Your task to perform on an android device: create a new album in the google photos Image 0: 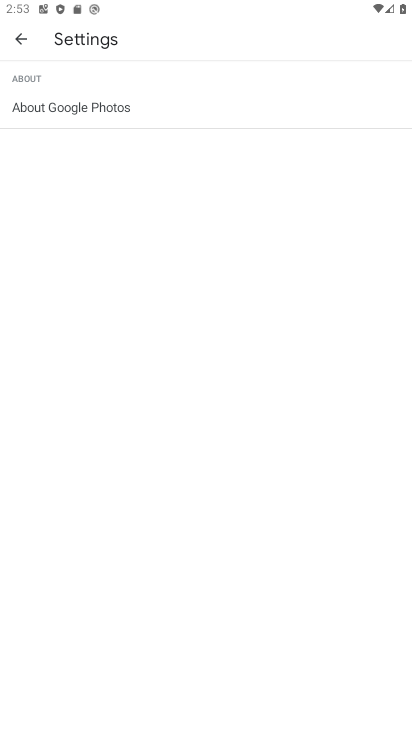
Step 0: press home button
Your task to perform on an android device: create a new album in the google photos Image 1: 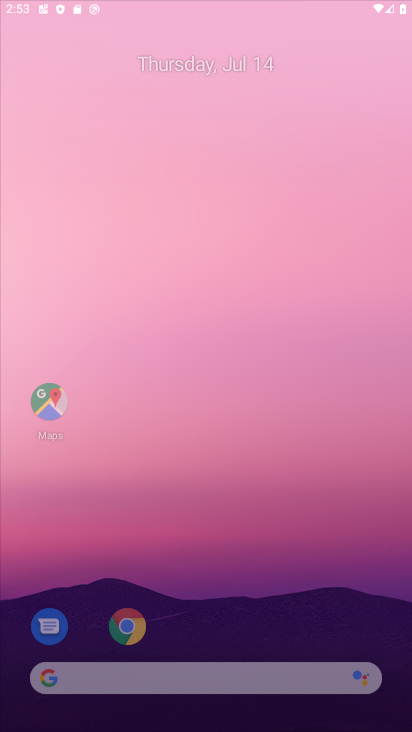
Step 1: drag from (232, 531) to (274, 170)
Your task to perform on an android device: create a new album in the google photos Image 2: 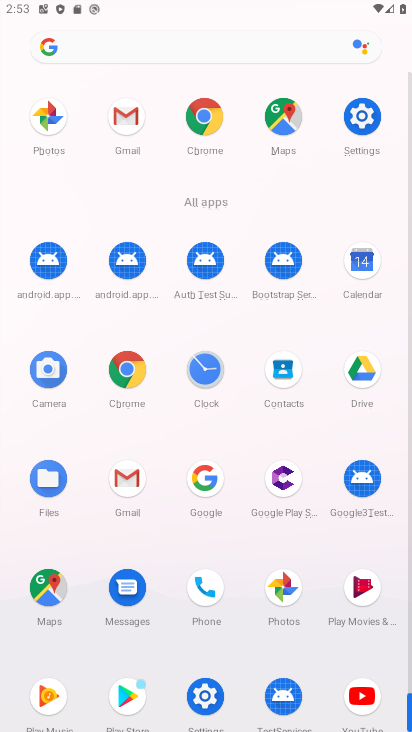
Step 2: click (278, 584)
Your task to perform on an android device: create a new album in the google photos Image 3: 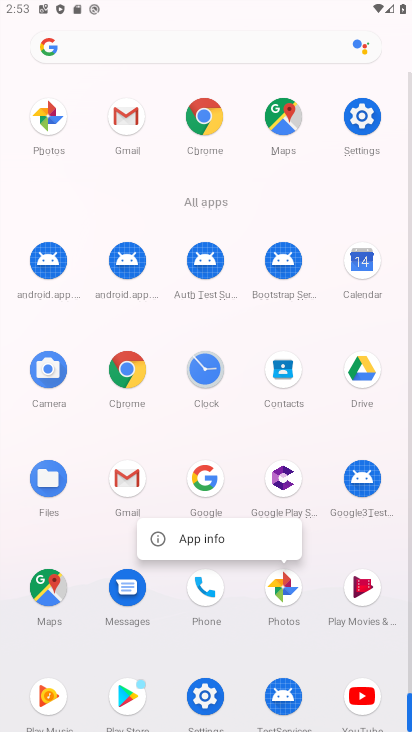
Step 3: click (216, 537)
Your task to perform on an android device: create a new album in the google photos Image 4: 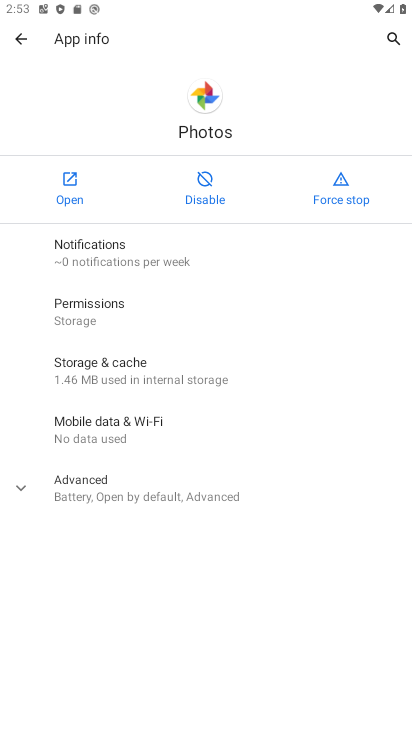
Step 4: click (69, 182)
Your task to perform on an android device: create a new album in the google photos Image 5: 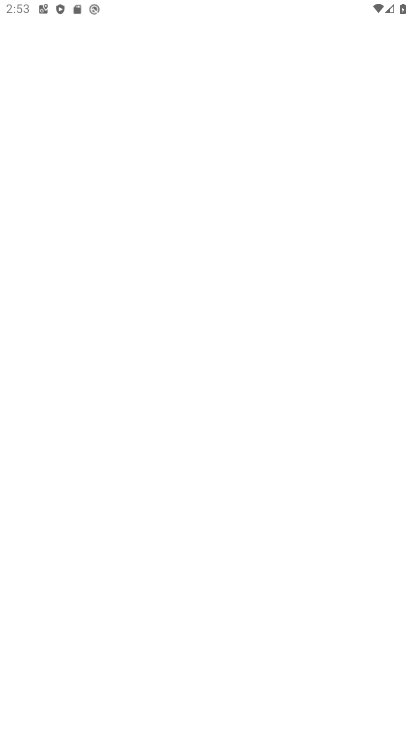
Step 5: drag from (330, 614) to (322, 366)
Your task to perform on an android device: create a new album in the google photos Image 6: 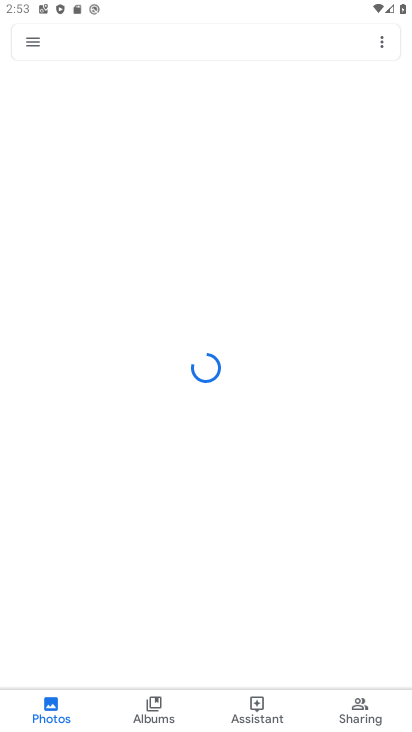
Step 6: drag from (274, 457) to (248, 305)
Your task to perform on an android device: create a new album in the google photos Image 7: 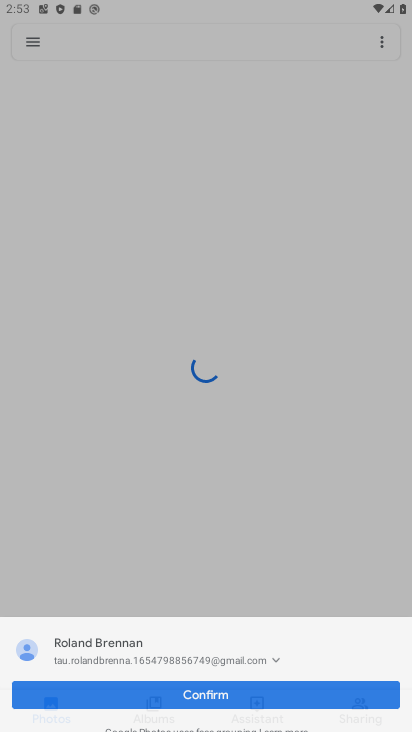
Step 7: click (217, 260)
Your task to perform on an android device: create a new album in the google photos Image 8: 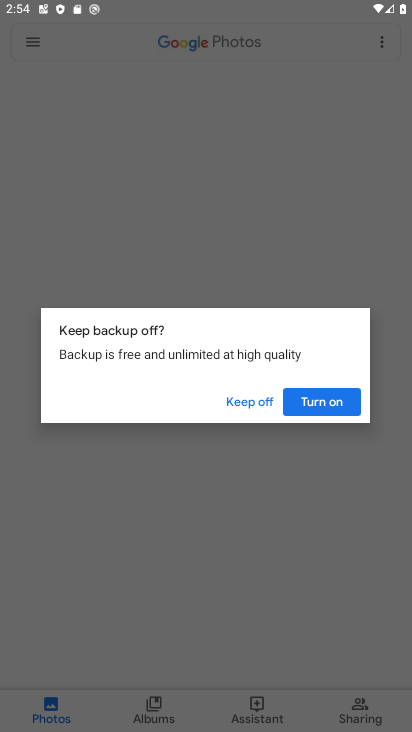
Step 8: click (255, 293)
Your task to perform on an android device: create a new album in the google photos Image 9: 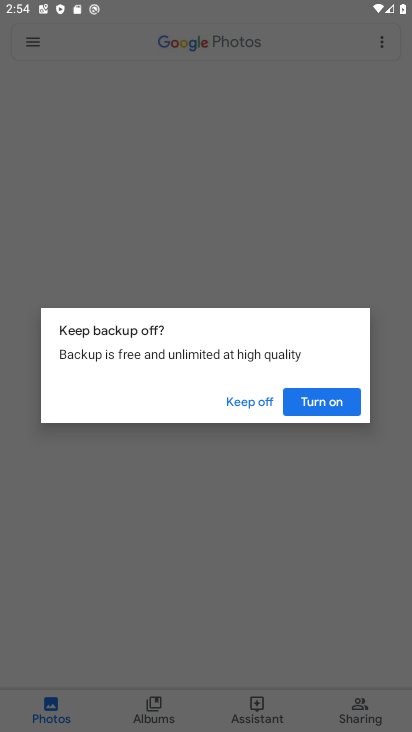
Step 9: click (303, 399)
Your task to perform on an android device: create a new album in the google photos Image 10: 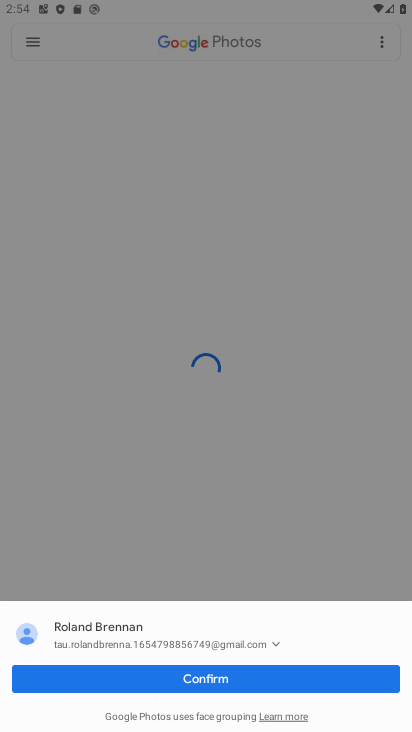
Step 10: drag from (323, 524) to (324, 307)
Your task to perform on an android device: create a new album in the google photos Image 11: 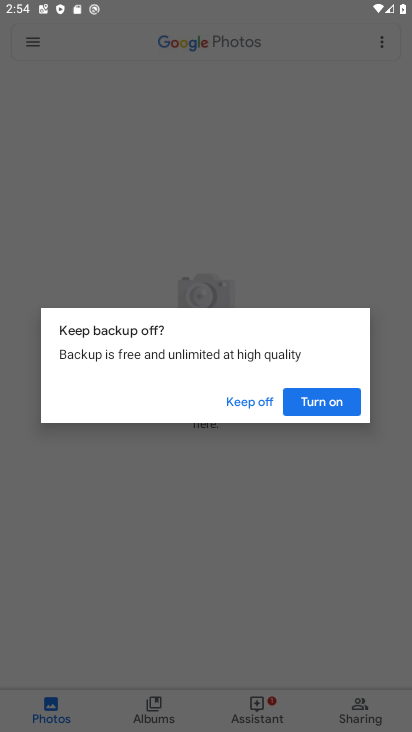
Step 11: drag from (208, 499) to (260, 315)
Your task to perform on an android device: create a new album in the google photos Image 12: 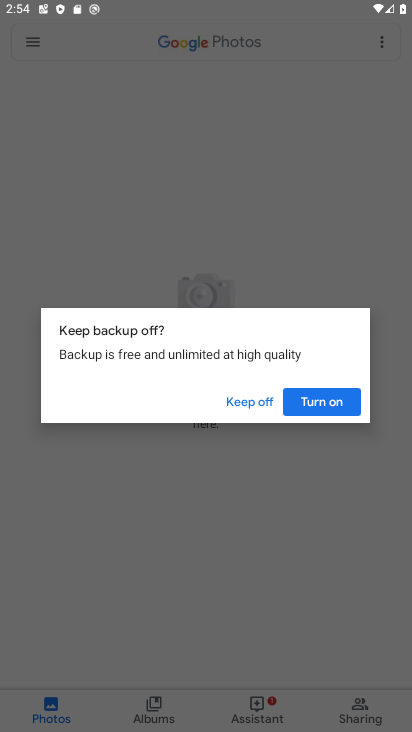
Step 12: click (306, 411)
Your task to perform on an android device: create a new album in the google photos Image 13: 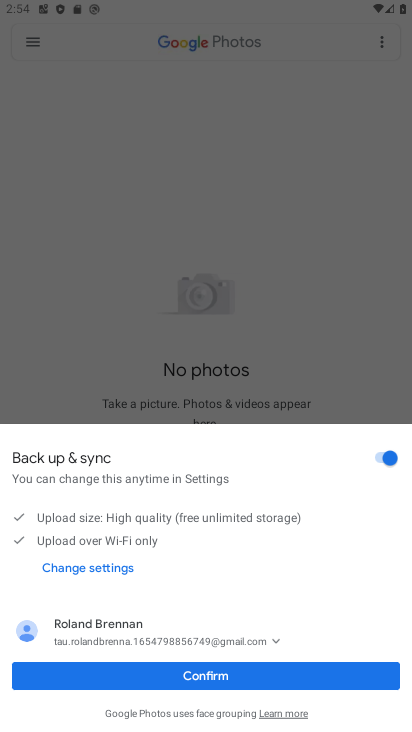
Step 13: click (155, 683)
Your task to perform on an android device: create a new album in the google photos Image 14: 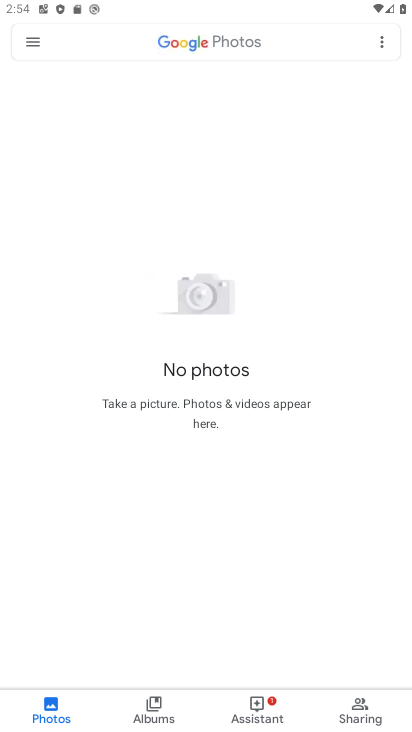
Step 14: drag from (240, 486) to (248, 282)
Your task to perform on an android device: create a new album in the google photos Image 15: 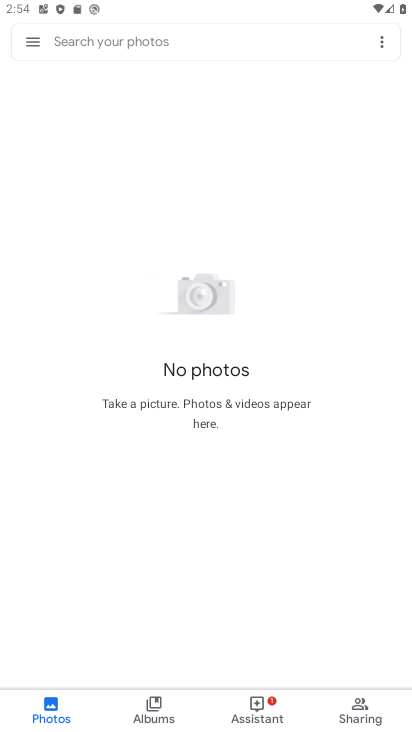
Step 15: click (17, 38)
Your task to perform on an android device: create a new album in the google photos Image 16: 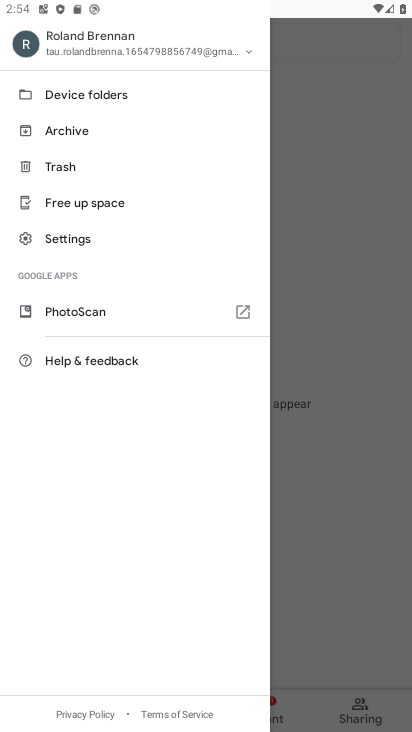
Step 16: click (294, 317)
Your task to perform on an android device: create a new album in the google photos Image 17: 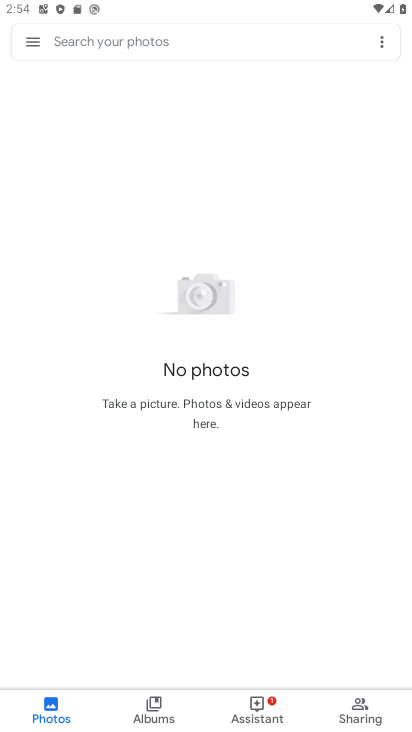
Step 17: drag from (204, 450) to (178, 232)
Your task to perform on an android device: create a new album in the google photos Image 18: 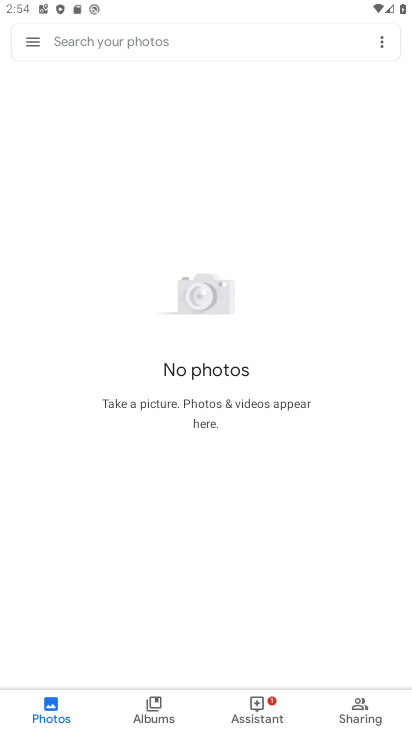
Step 18: click (32, 36)
Your task to perform on an android device: create a new album in the google photos Image 19: 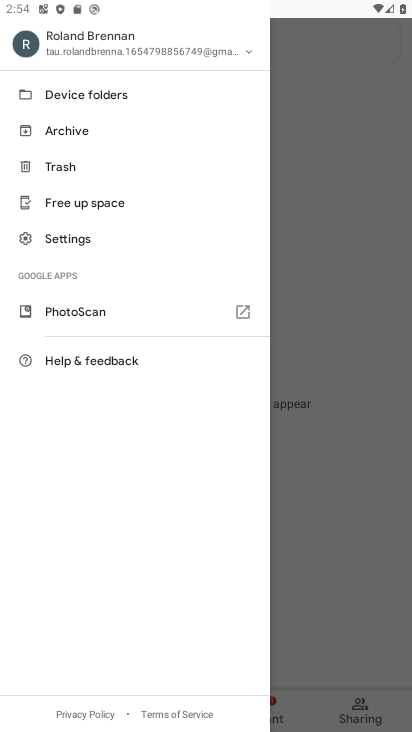
Step 19: click (372, 445)
Your task to perform on an android device: create a new album in the google photos Image 20: 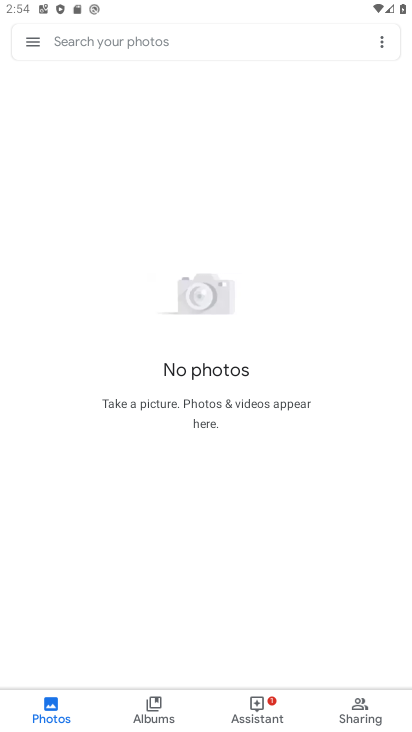
Step 20: click (178, 702)
Your task to perform on an android device: create a new album in the google photos Image 21: 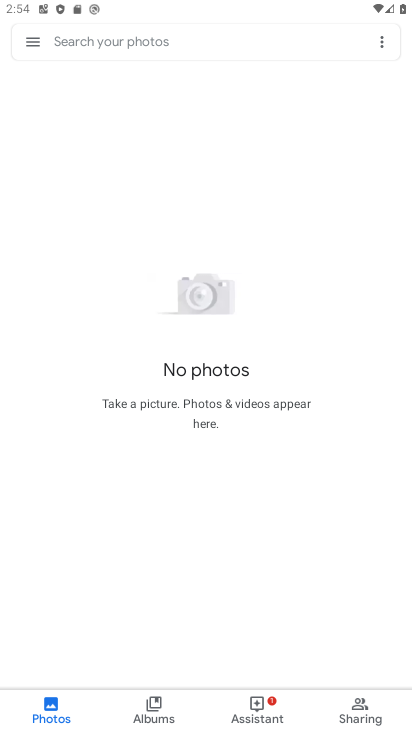
Step 21: click (162, 702)
Your task to perform on an android device: create a new album in the google photos Image 22: 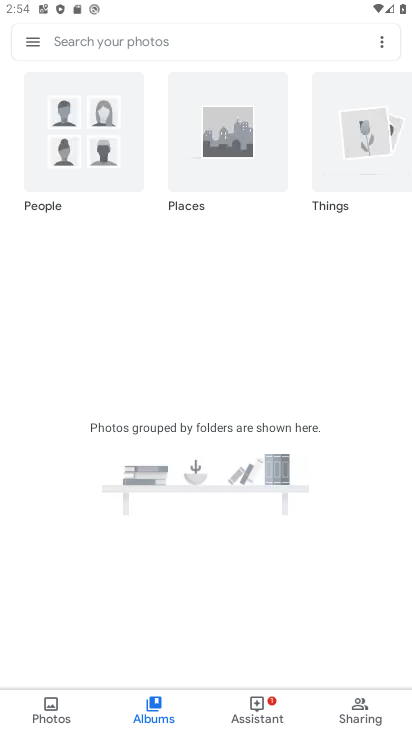
Step 22: task complete